Your task to perform on an android device: What is the recent news? Image 0: 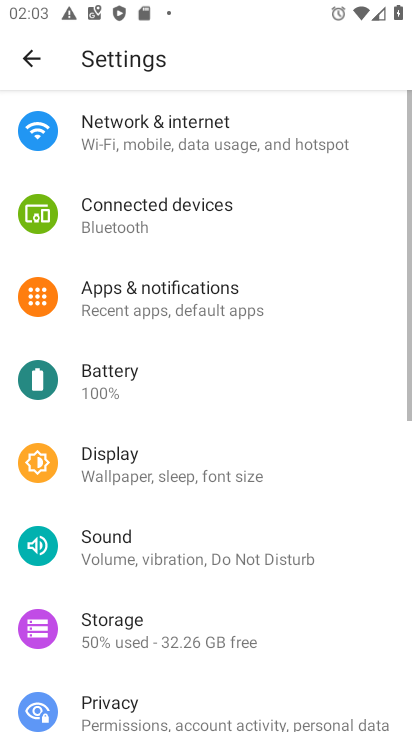
Step 0: press home button
Your task to perform on an android device: What is the recent news? Image 1: 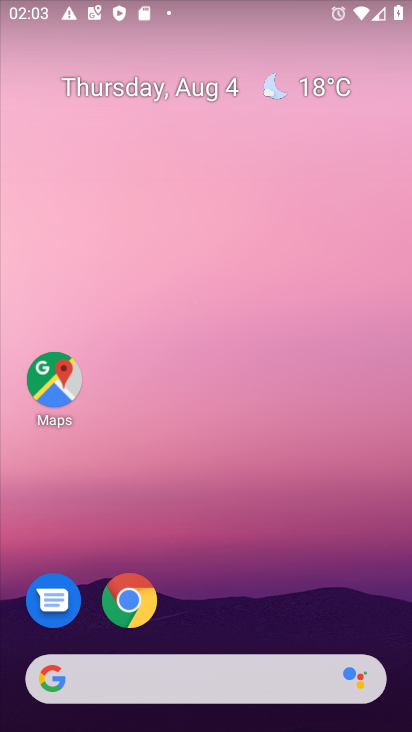
Step 1: click (133, 685)
Your task to perform on an android device: What is the recent news? Image 2: 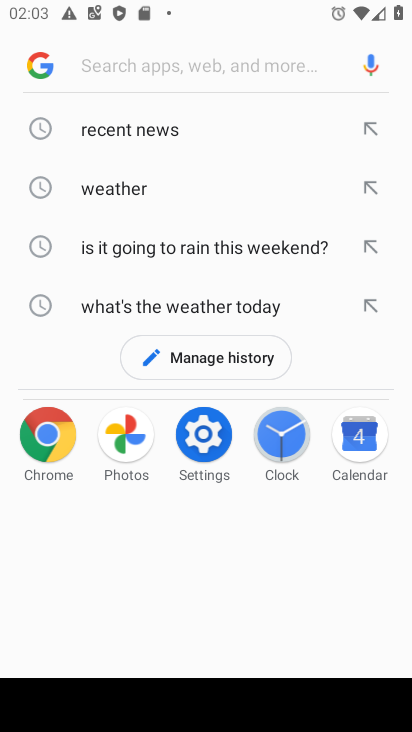
Step 2: click (149, 132)
Your task to perform on an android device: What is the recent news? Image 3: 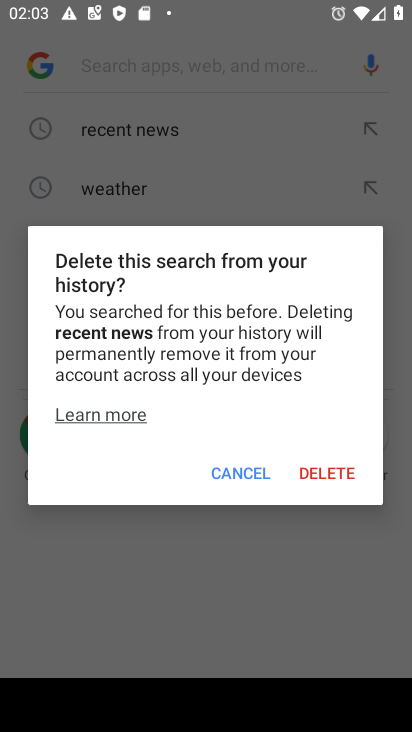
Step 3: click (224, 480)
Your task to perform on an android device: What is the recent news? Image 4: 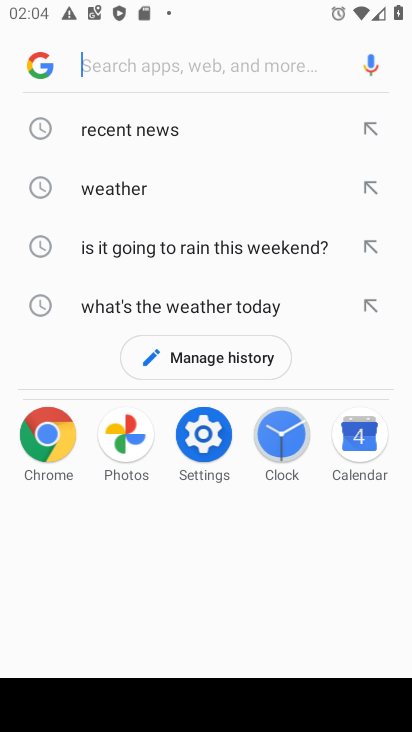
Step 4: click (133, 127)
Your task to perform on an android device: What is the recent news? Image 5: 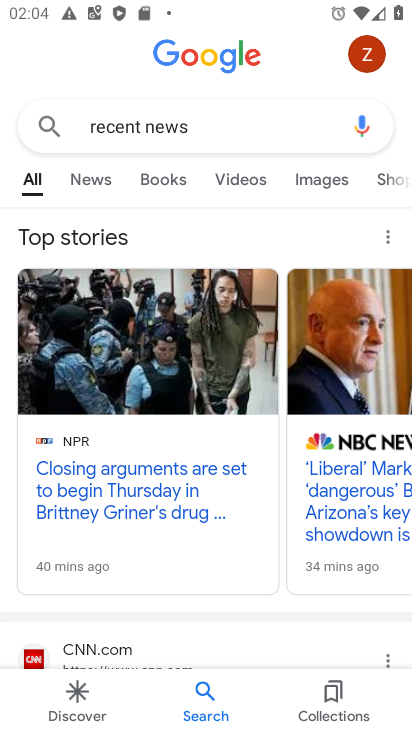
Step 5: click (102, 176)
Your task to perform on an android device: What is the recent news? Image 6: 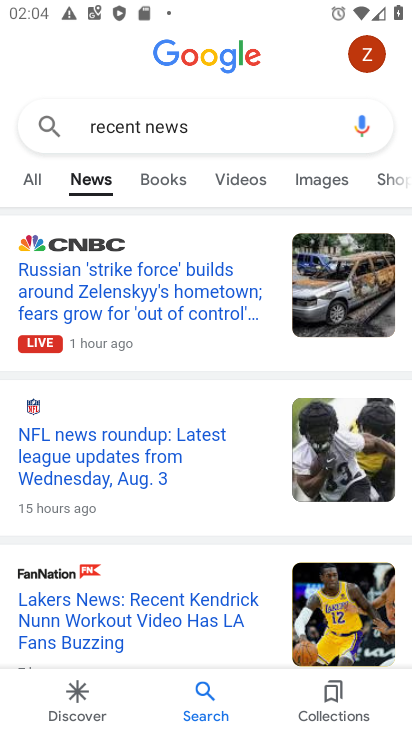
Step 6: task complete